Your task to perform on an android device: check the backup settings in the google photos Image 0: 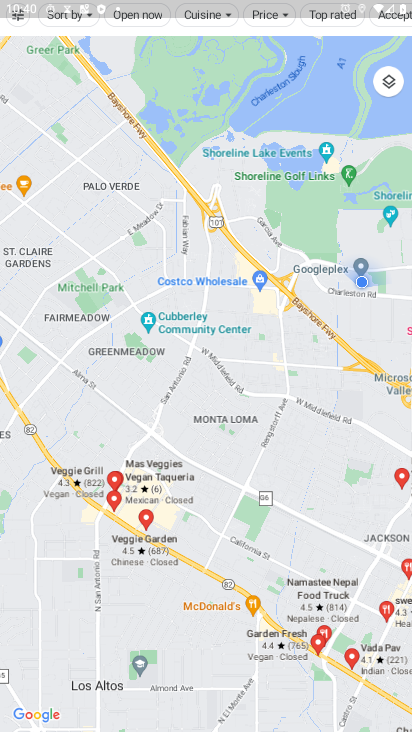
Step 0: press back button
Your task to perform on an android device: check the backup settings in the google photos Image 1: 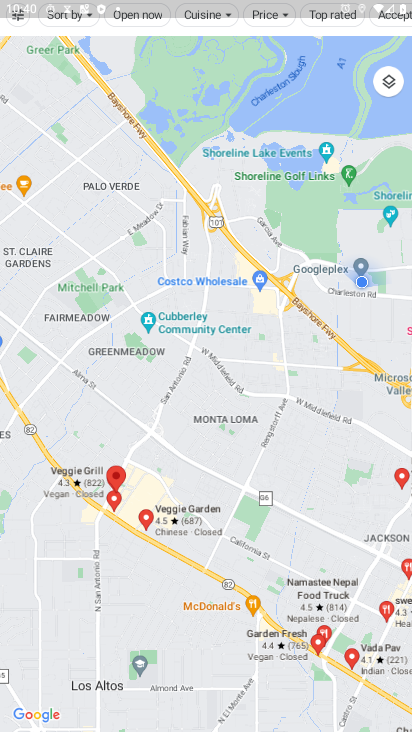
Step 1: press home button
Your task to perform on an android device: check the backup settings in the google photos Image 2: 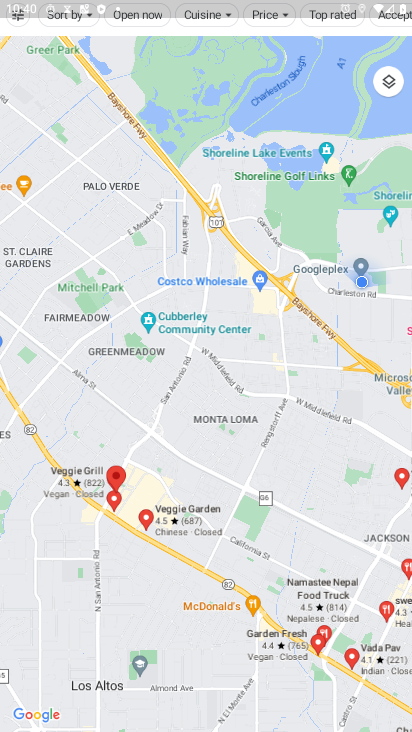
Step 2: press home button
Your task to perform on an android device: check the backup settings in the google photos Image 3: 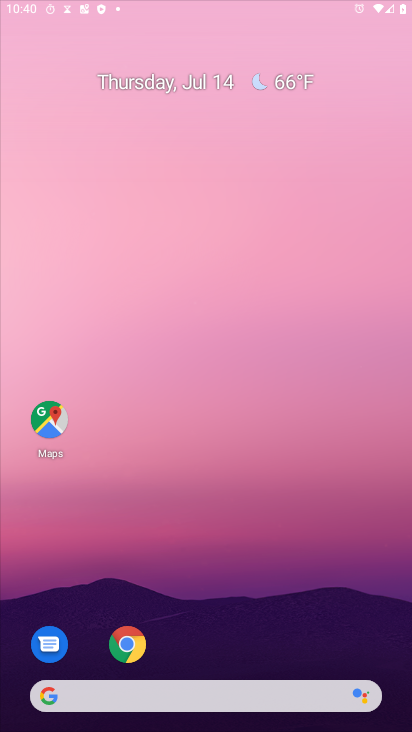
Step 3: press home button
Your task to perform on an android device: check the backup settings in the google photos Image 4: 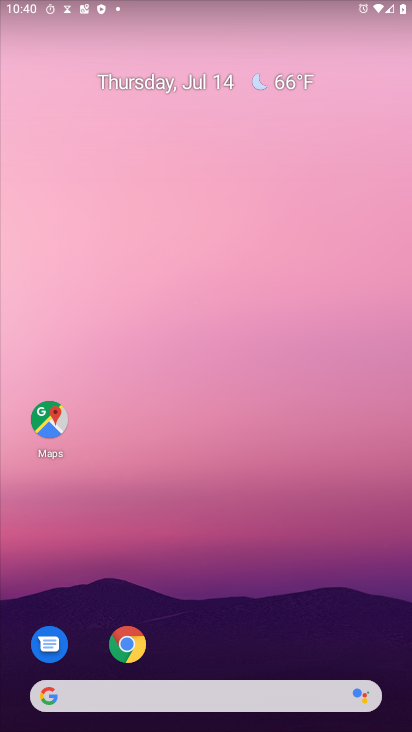
Step 4: drag from (327, 614) to (73, 127)
Your task to perform on an android device: check the backup settings in the google photos Image 5: 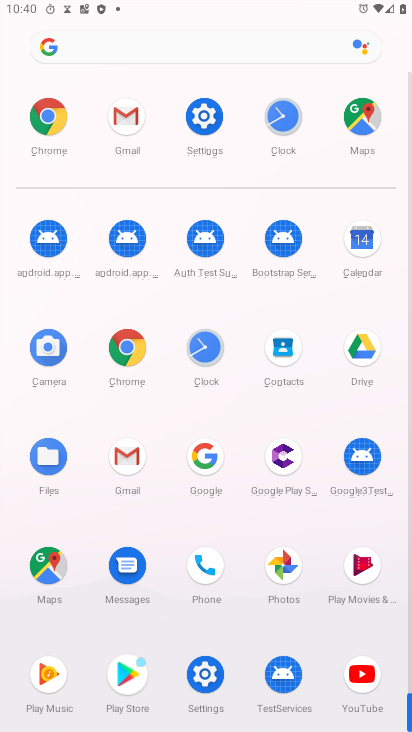
Step 5: click (263, 563)
Your task to perform on an android device: check the backup settings in the google photos Image 6: 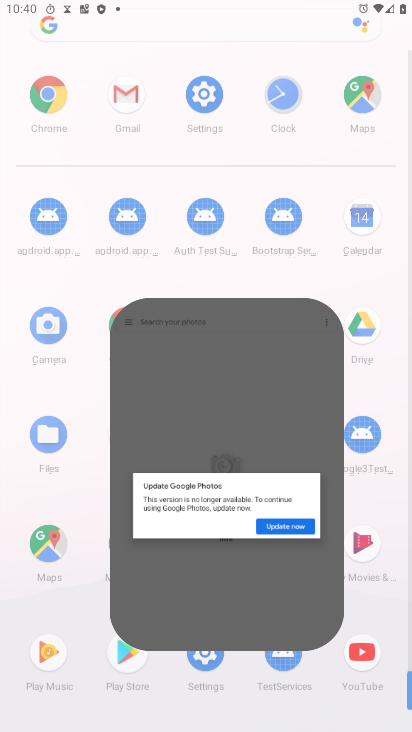
Step 6: click (273, 565)
Your task to perform on an android device: check the backup settings in the google photos Image 7: 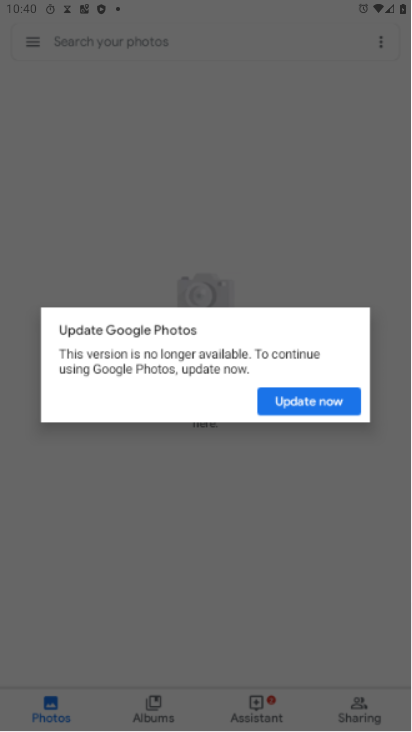
Step 7: click (273, 565)
Your task to perform on an android device: check the backup settings in the google photos Image 8: 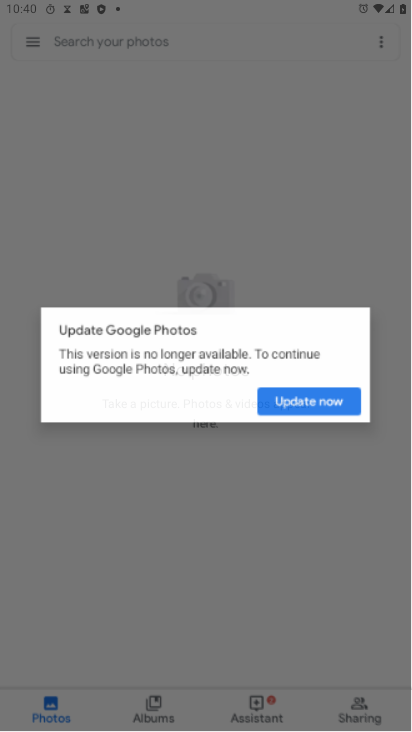
Step 8: click (281, 568)
Your task to perform on an android device: check the backup settings in the google photos Image 9: 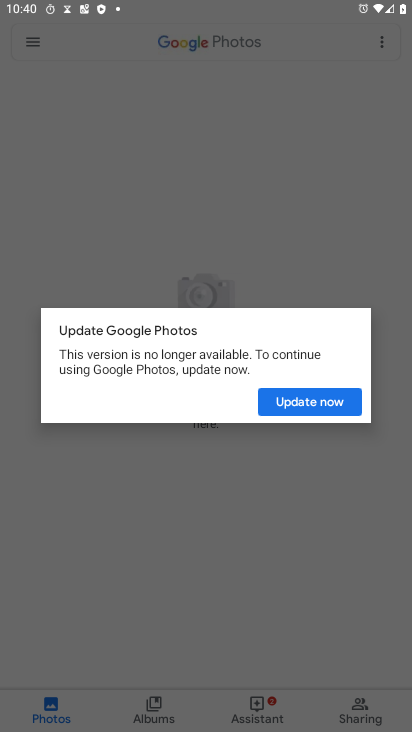
Step 9: click (273, 225)
Your task to perform on an android device: check the backup settings in the google photos Image 10: 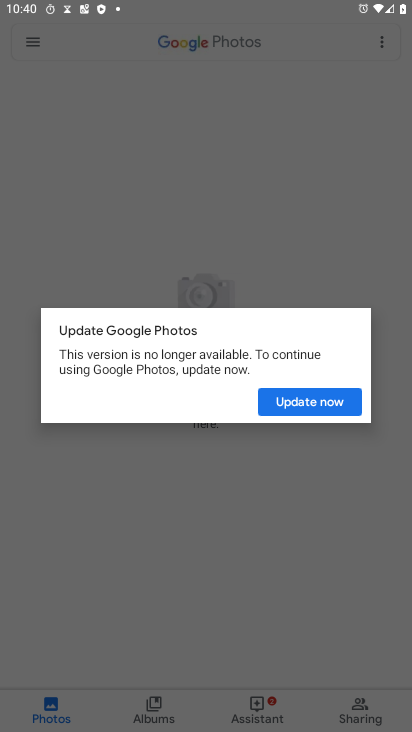
Step 10: click (273, 210)
Your task to perform on an android device: check the backup settings in the google photos Image 11: 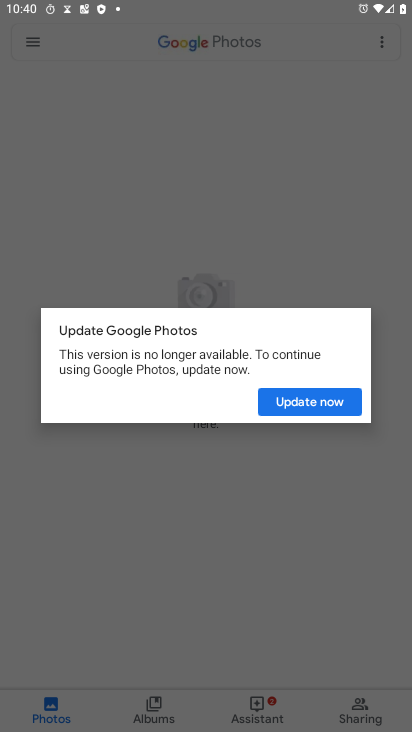
Step 11: click (273, 210)
Your task to perform on an android device: check the backup settings in the google photos Image 12: 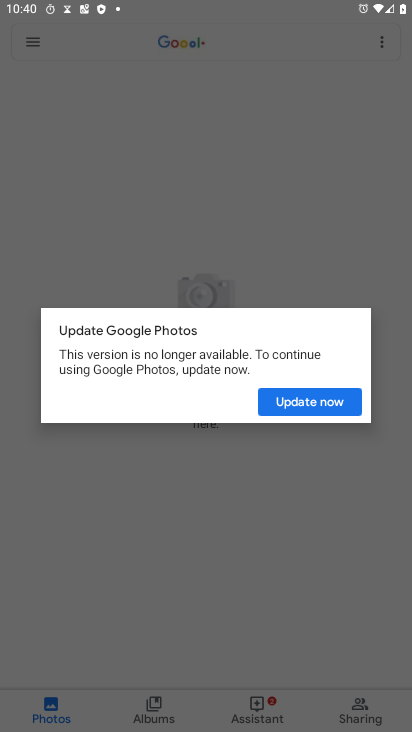
Step 12: click (277, 218)
Your task to perform on an android device: check the backup settings in the google photos Image 13: 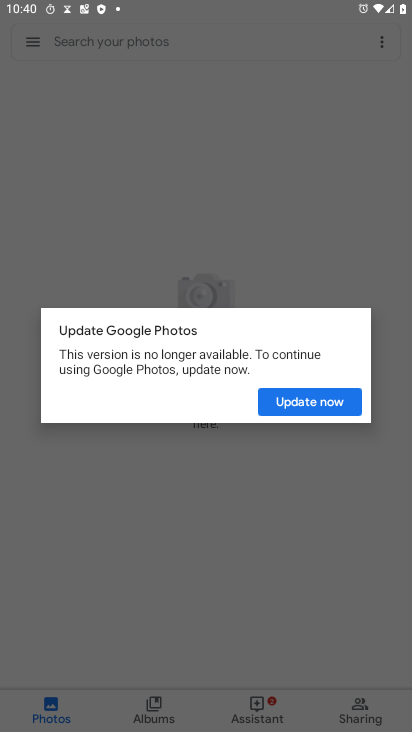
Step 13: click (322, 472)
Your task to perform on an android device: check the backup settings in the google photos Image 14: 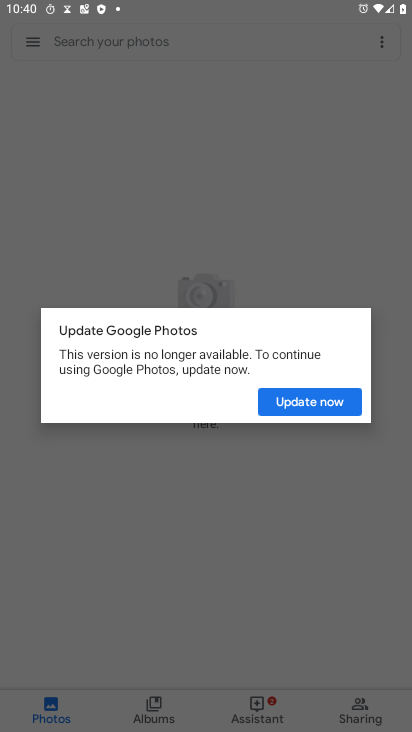
Step 14: click (320, 471)
Your task to perform on an android device: check the backup settings in the google photos Image 15: 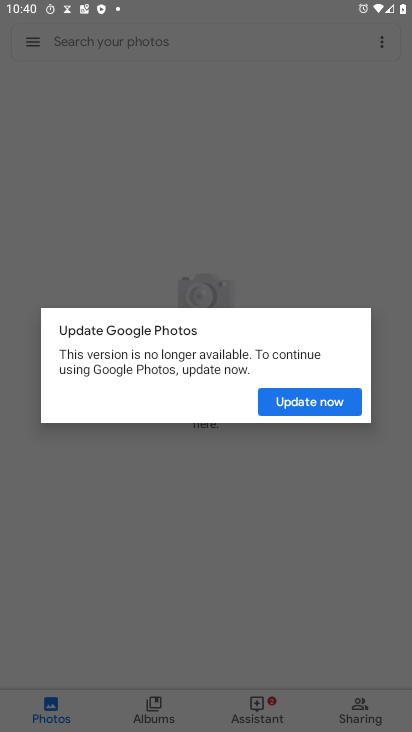
Step 15: click (325, 482)
Your task to perform on an android device: check the backup settings in the google photos Image 16: 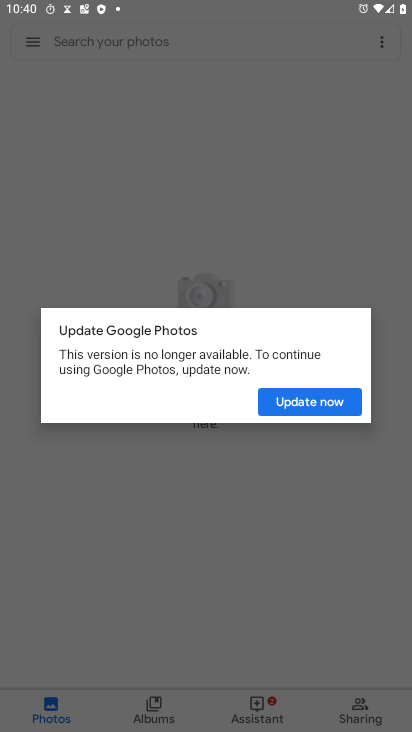
Step 16: click (323, 257)
Your task to perform on an android device: check the backup settings in the google photos Image 17: 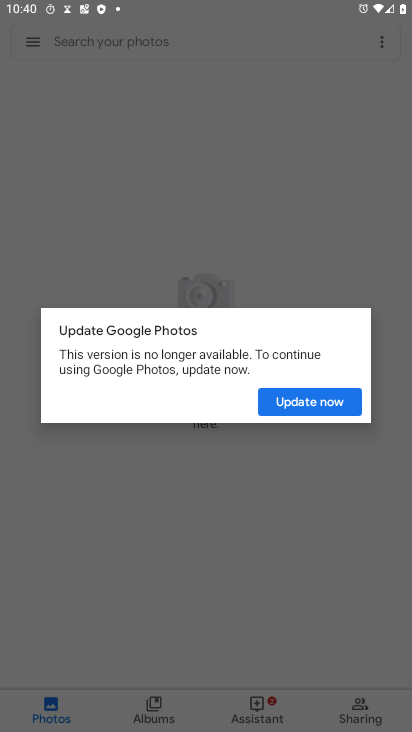
Step 17: click (328, 253)
Your task to perform on an android device: check the backup settings in the google photos Image 18: 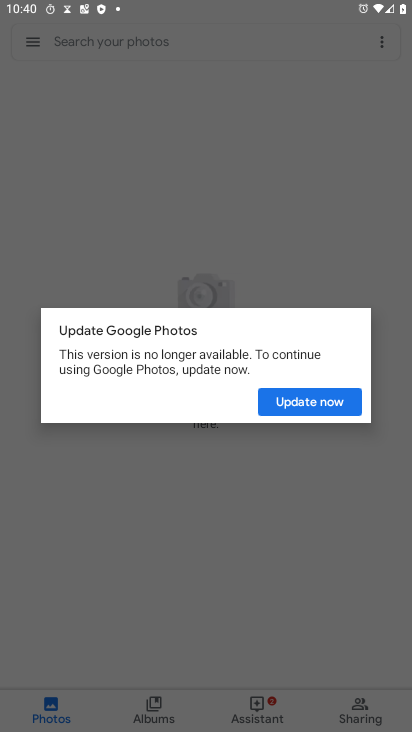
Step 18: click (218, 168)
Your task to perform on an android device: check the backup settings in the google photos Image 19: 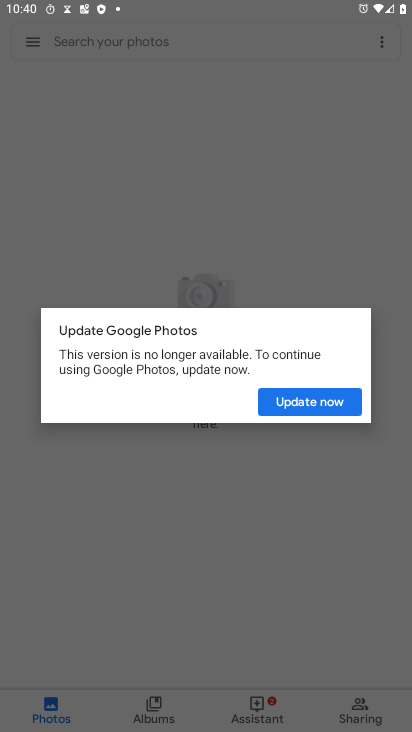
Step 19: click (218, 172)
Your task to perform on an android device: check the backup settings in the google photos Image 20: 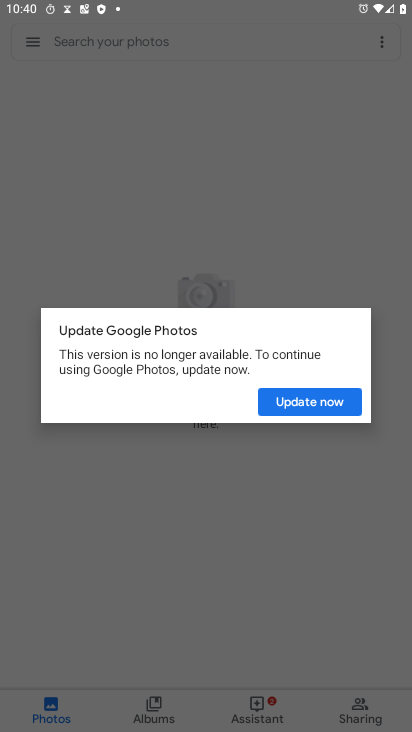
Step 20: click (218, 172)
Your task to perform on an android device: check the backup settings in the google photos Image 21: 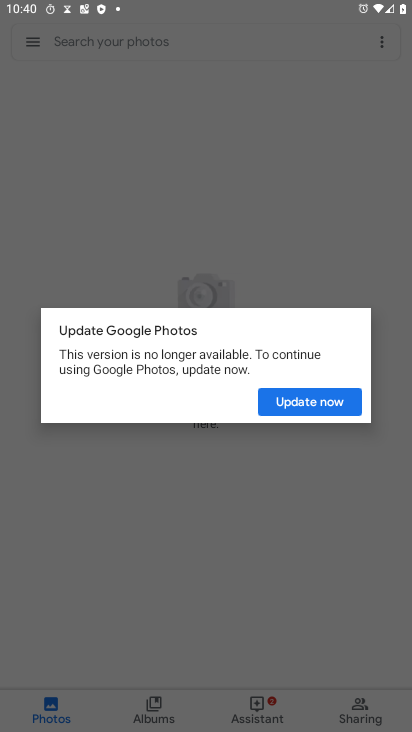
Step 21: click (218, 172)
Your task to perform on an android device: check the backup settings in the google photos Image 22: 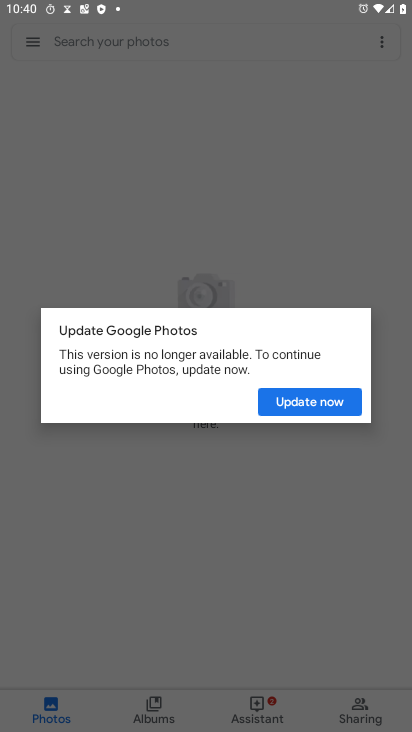
Step 22: click (221, 183)
Your task to perform on an android device: check the backup settings in the google photos Image 23: 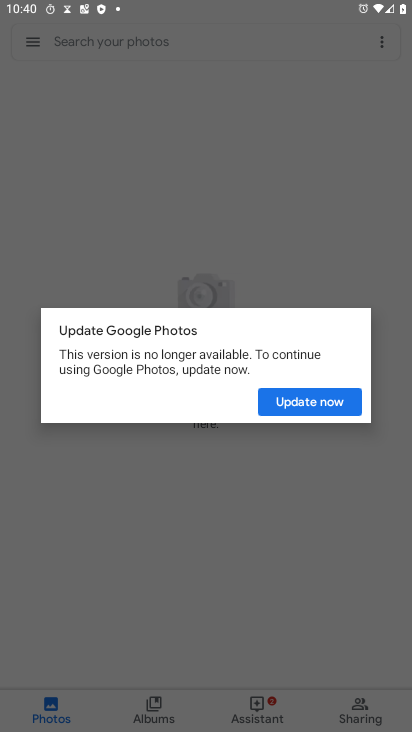
Step 23: click (223, 186)
Your task to perform on an android device: check the backup settings in the google photos Image 24: 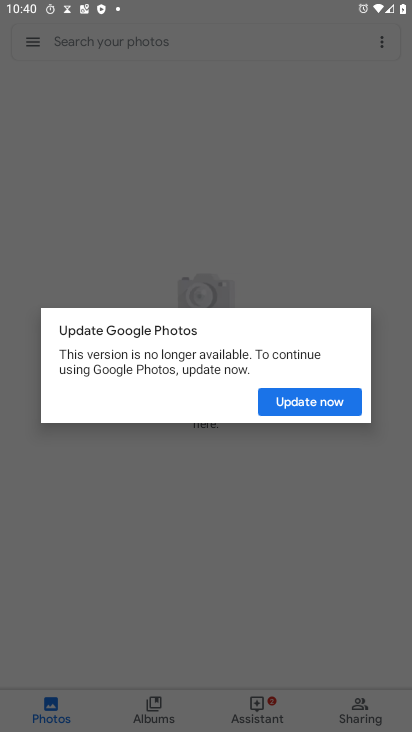
Step 24: click (225, 190)
Your task to perform on an android device: check the backup settings in the google photos Image 25: 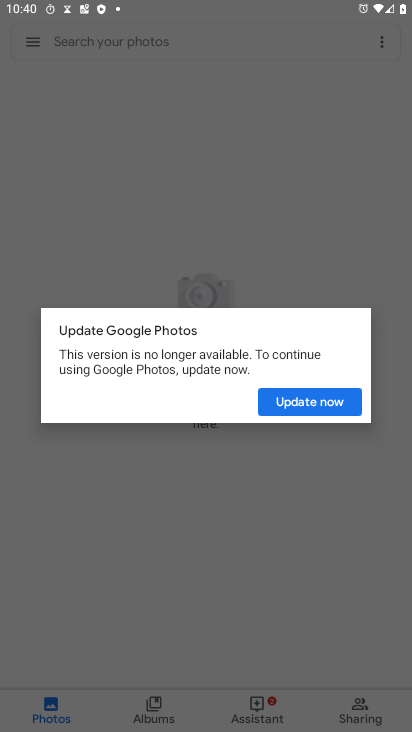
Step 25: click (317, 400)
Your task to perform on an android device: check the backup settings in the google photos Image 26: 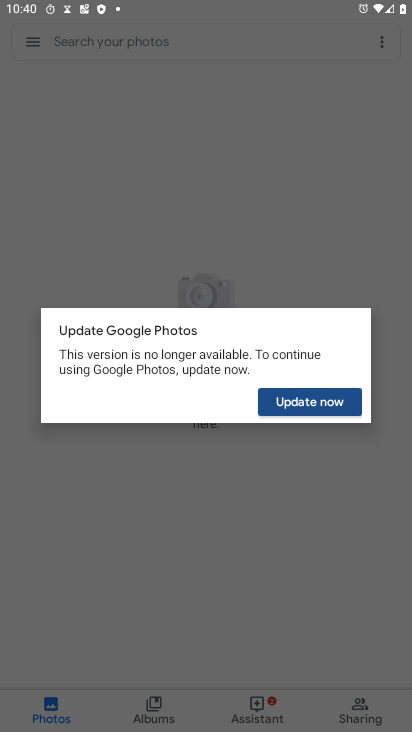
Step 26: click (317, 400)
Your task to perform on an android device: check the backup settings in the google photos Image 27: 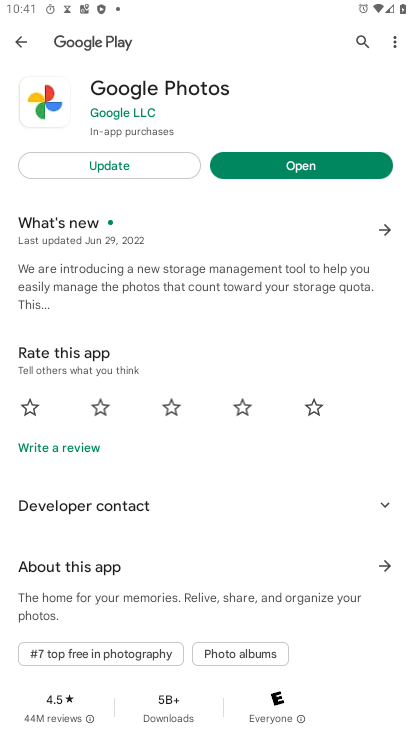
Step 27: click (130, 162)
Your task to perform on an android device: check the backup settings in the google photos Image 28: 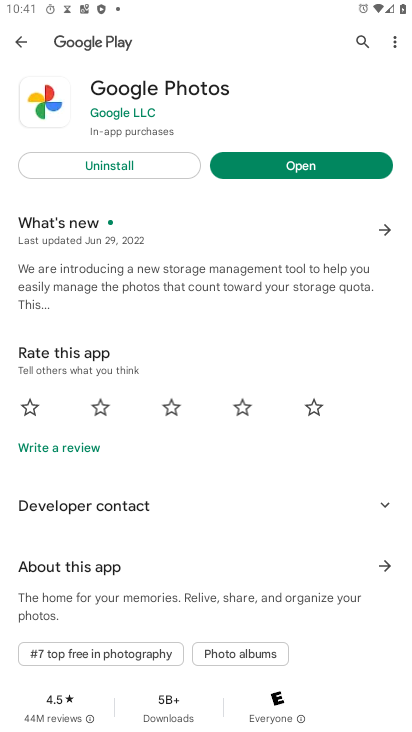
Step 28: click (293, 180)
Your task to perform on an android device: check the backup settings in the google photos Image 29: 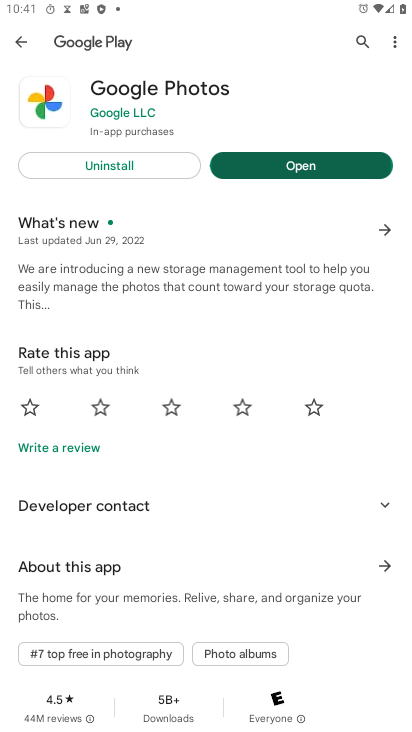
Step 29: click (293, 180)
Your task to perform on an android device: check the backup settings in the google photos Image 30: 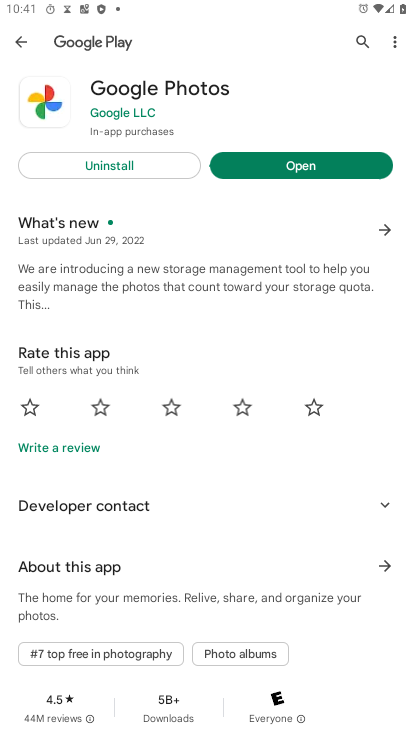
Step 30: click (297, 176)
Your task to perform on an android device: check the backup settings in the google photos Image 31: 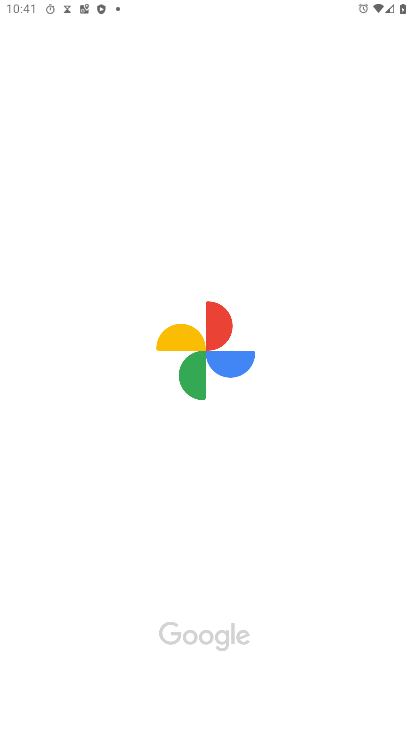
Step 31: click (303, 163)
Your task to perform on an android device: check the backup settings in the google photos Image 32: 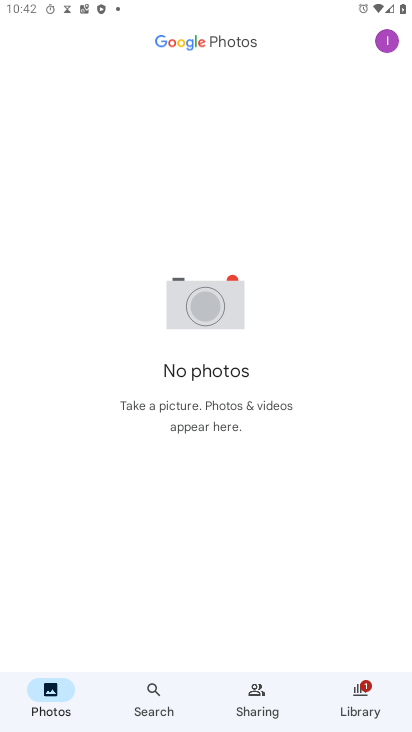
Step 32: task complete